Your task to perform on an android device: Open Google Chrome and open the bookmarks view Image 0: 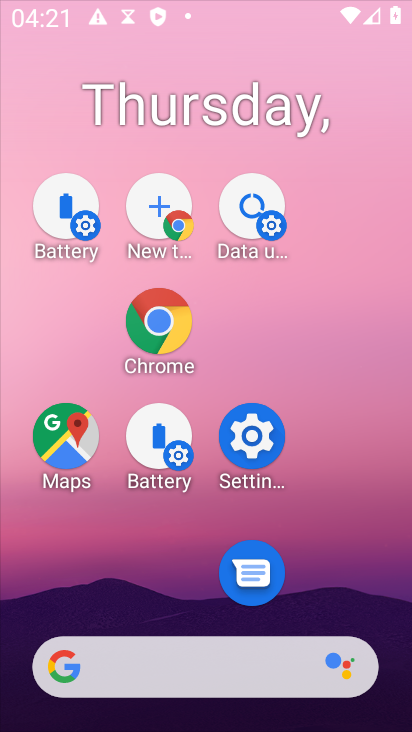
Step 0: press home button
Your task to perform on an android device: Open Google Chrome and open the bookmarks view Image 1: 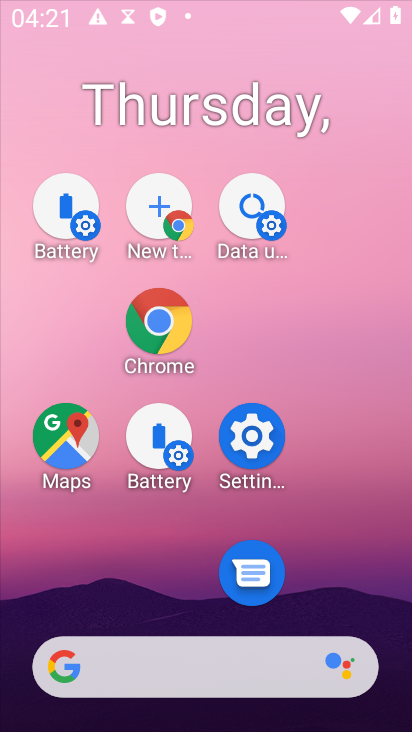
Step 1: click (187, 204)
Your task to perform on an android device: Open Google Chrome and open the bookmarks view Image 2: 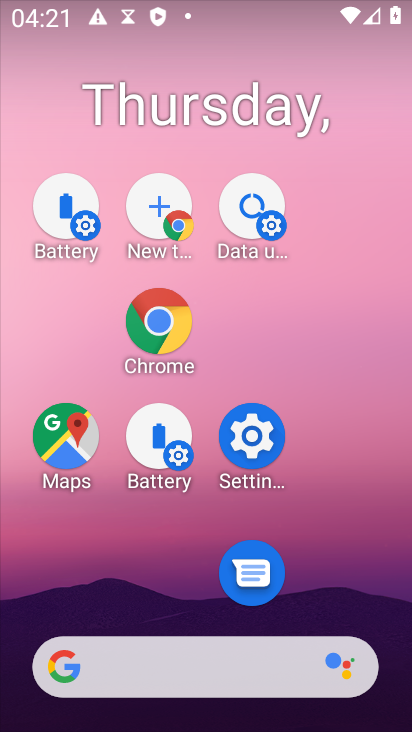
Step 2: drag from (240, 612) to (194, 183)
Your task to perform on an android device: Open Google Chrome and open the bookmarks view Image 3: 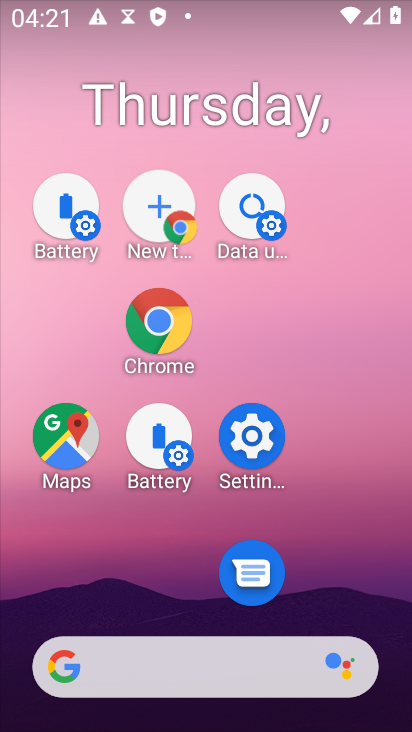
Step 3: drag from (213, 374) to (210, 184)
Your task to perform on an android device: Open Google Chrome and open the bookmarks view Image 4: 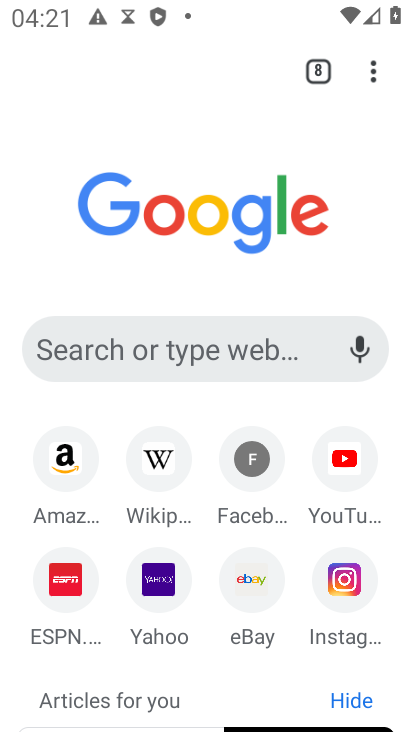
Step 4: drag from (253, 575) to (182, 219)
Your task to perform on an android device: Open Google Chrome and open the bookmarks view Image 5: 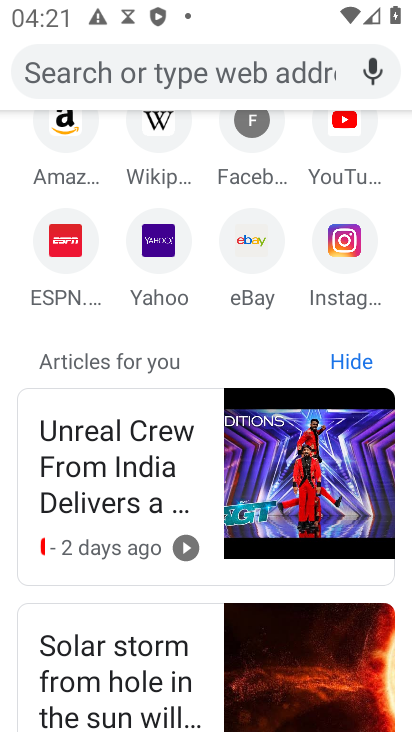
Step 5: drag from (212, 423) to (249, 548)
Your task to perform on an android device: Open Google Chrome and open the bookmarks view Image 6: 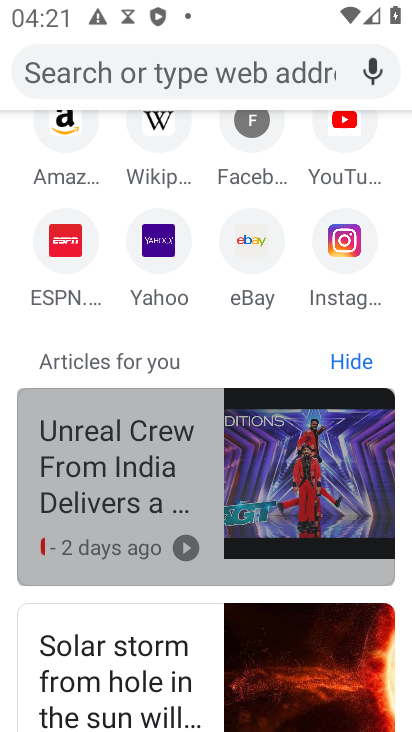
Step 6: drag from (212, 418) to (262, 621)
Your task to perform on an android device: Open Google Chrome and open the bookmarks view Image 7: 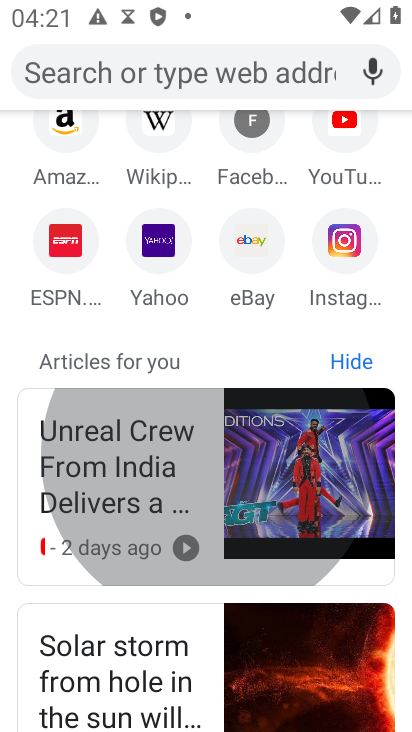
Step 7: drag from (220, 283) to (341, 591)
Your task to perform on an android device: Open Google Chrome and open the bookmarks view Image 8: 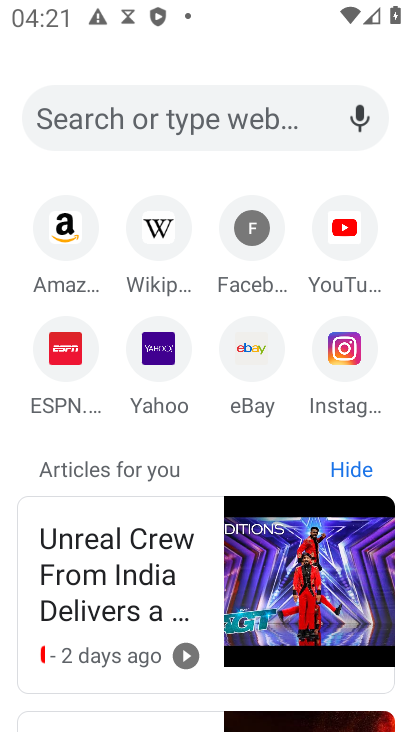
Step 8: drag from (226, 355) to (267, 620)
Your task to perform on an android device: Open Google Chrome and open the bookmarks view Image 9: 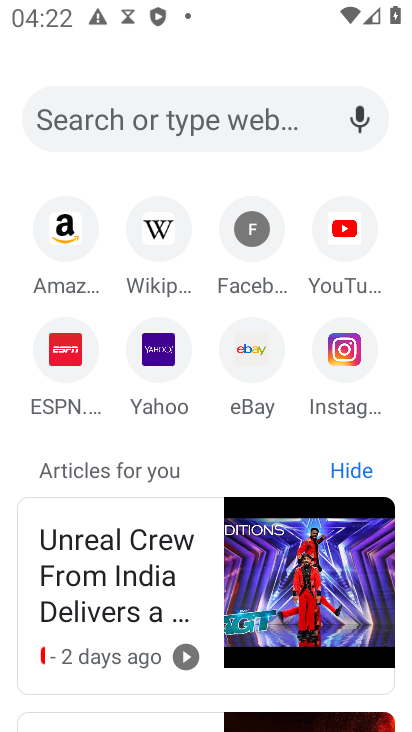
Step 9: drag from (267, 506) to (298, 602)
Your task to perform on an android device: Open Google Chrome and open the bookmarks view Image 10: 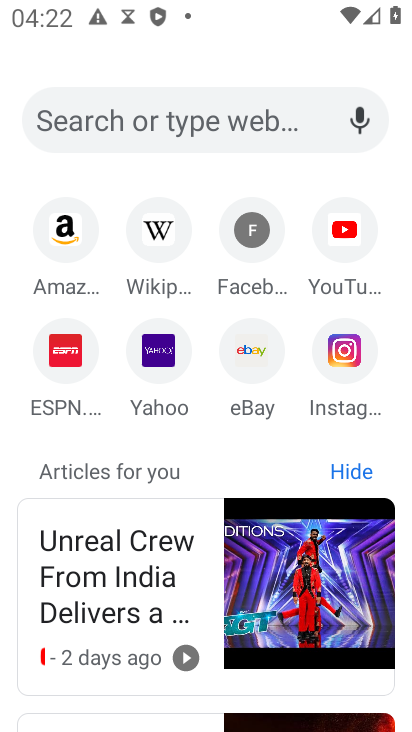
Step 10: drag from (248, 198) to (277, 661)
Your task to perform on an android device: Open Google Chrome and open the bookmarks view Image 11: 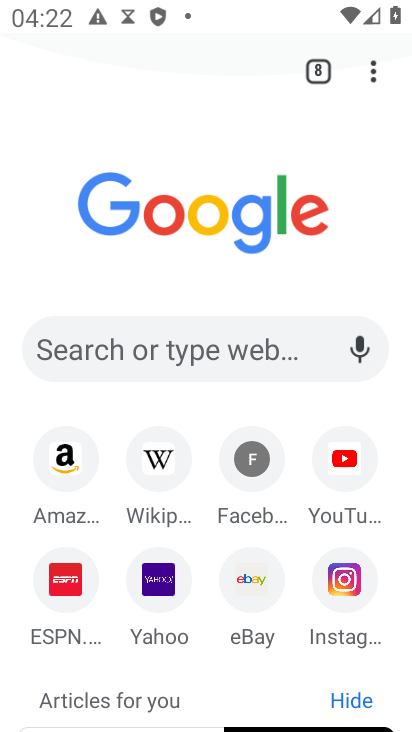
Step 11: drag from (265, 221) to (320, 586)
Your task to perform on an android device: Open Google Chrome and open the bookmarks view Image 12: 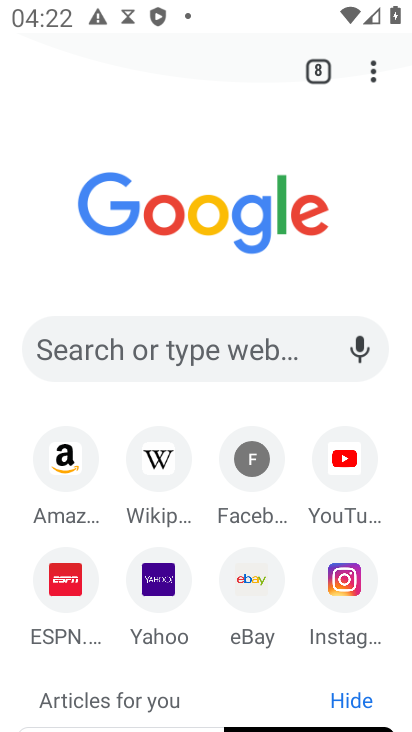
Step 12: drag from (247, 196) to (242, 474)
Your task to perform on an android device: Open Google Chrome and open the bookmarks view Image 13: 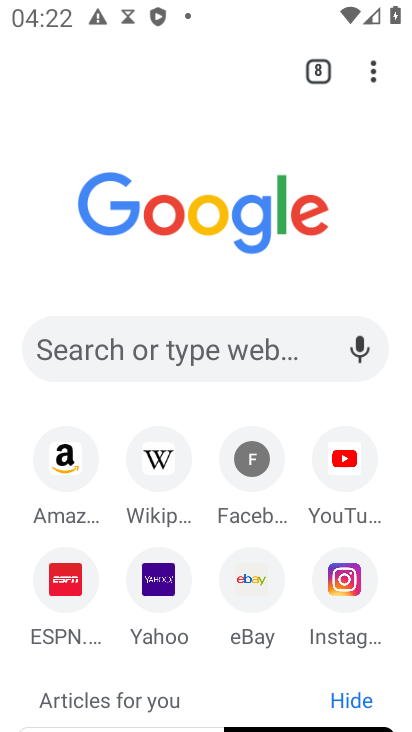
Step 13: drag from (372, 75) to (103, 293)
Your task to perform on an android device: Open Google Chrome and open the bookmarks view Image 14: 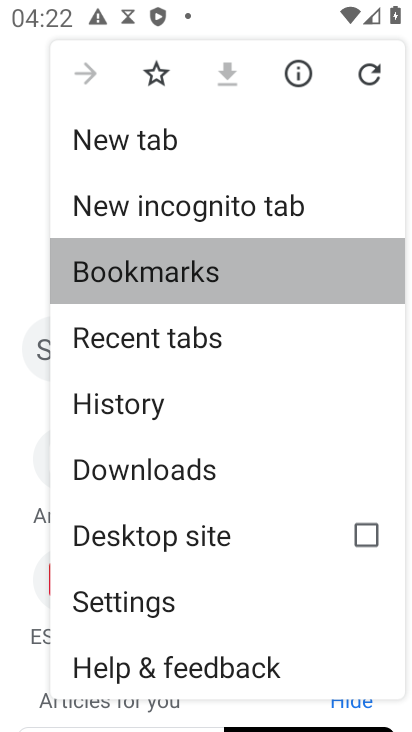
Step 14: click (104, 294)
Your task to perform on an android device: Open Google Chrome and open the bookmarks view Image 15: 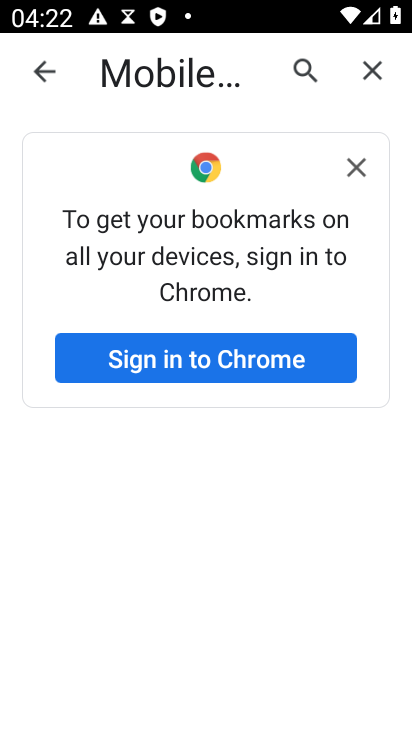
Step 15: click (358, 166)
Your task to perform on an android device: Open Google Chrome and open the bookmarks view Image 16: 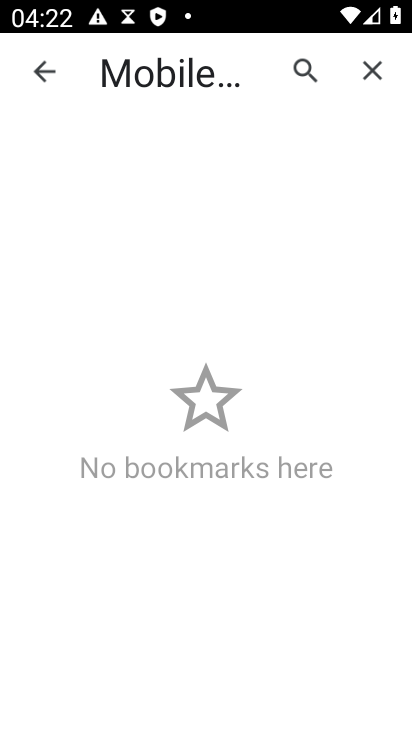
Step 16: task complete